Your task to perform on an android device: turn pop-ups off in chrome Image 0: 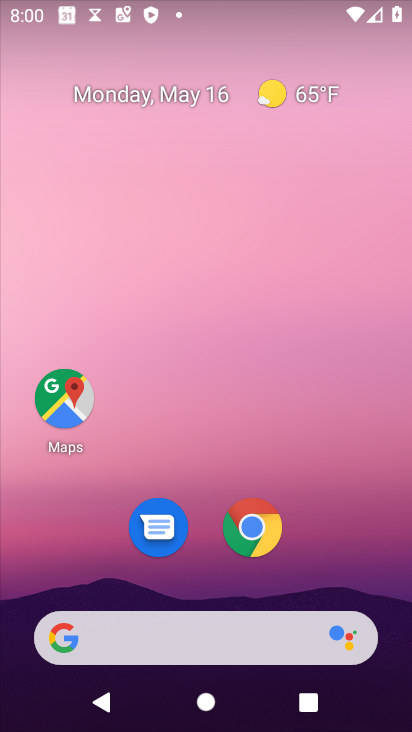
Step 0: drag from (341, 598) to (277, 144)
Your task to perform on an android device: turn pop-ups off in chrome Image 1: 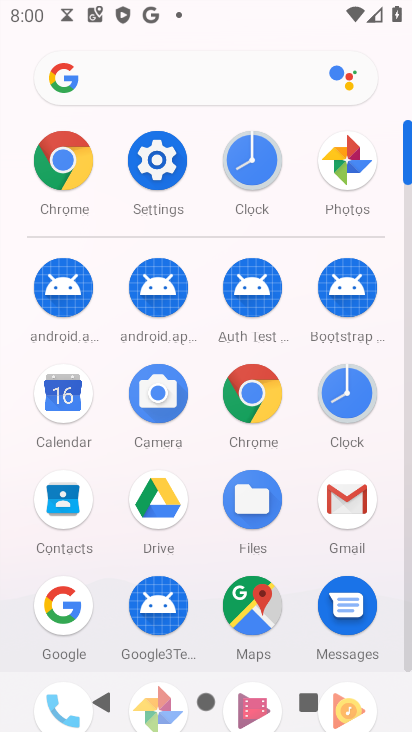
Step 1: click (56, 165)
Your task to perform on an android device: turn pop-ups off in chrome Image 2: 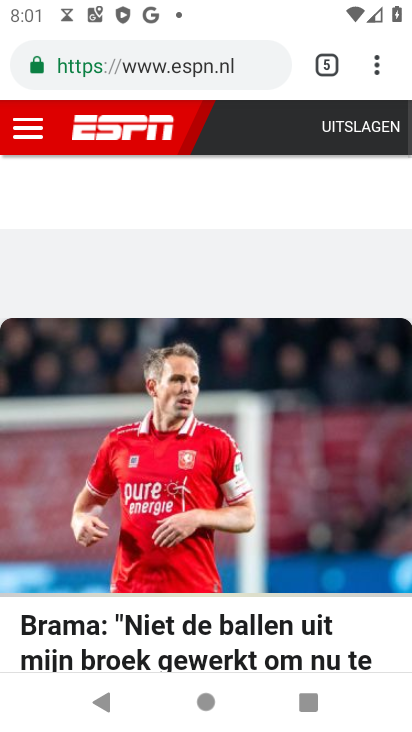
Step 2: click (359, 59)
Your task to perform on an android device: turn pop-ups off in chrome Image 3: 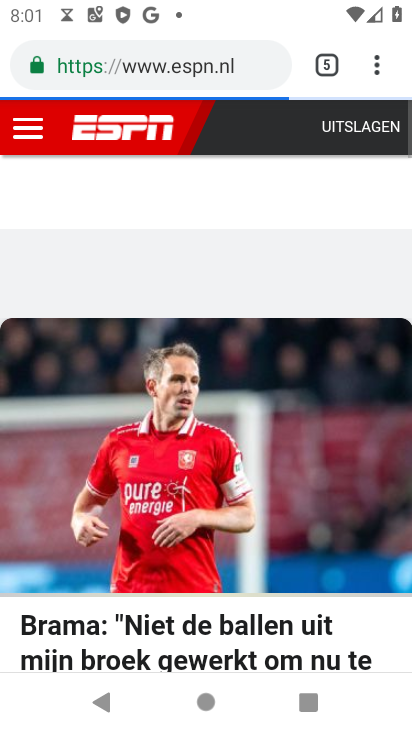
Step 3: click (360, 68)
Your task to perform on an android device: turn pop-ups off in chrome Image 4: 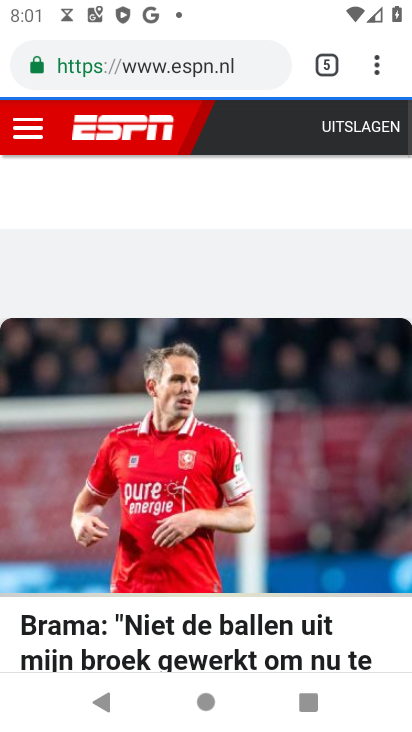
Step 4: click (379, 45)
Your task to perform on an android device: turn pop-ups off in chrome Image 5: 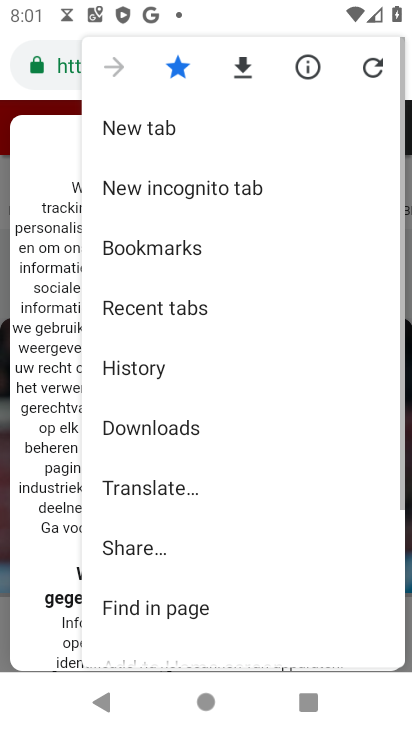
Step 5: drag from (228, 586) to (293, 267)
Your task to perform on an android device: turn pop-ups off in chrome Image 6: 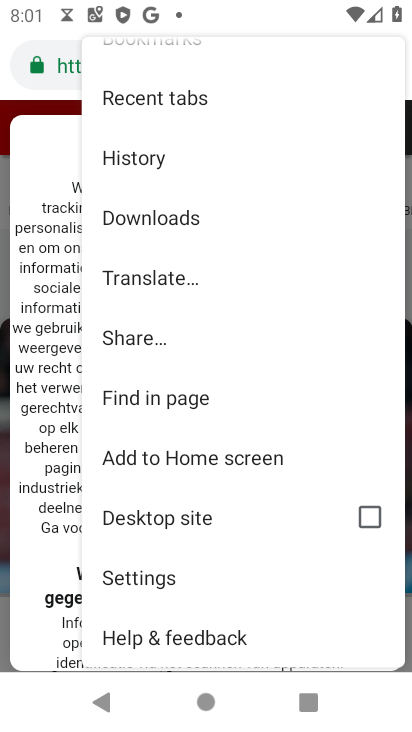
Step 6: click (185, 586)
Your task to perform on an android device: turn pop-ups off in chrome Image 7: 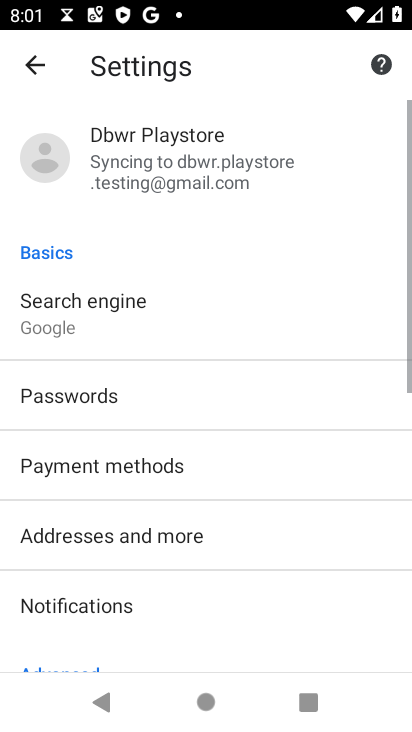
Step 7: drag from (169, 566) to (213, 264)
Your task to perform on an android device: turn pop-ups off in chrome Image 8: 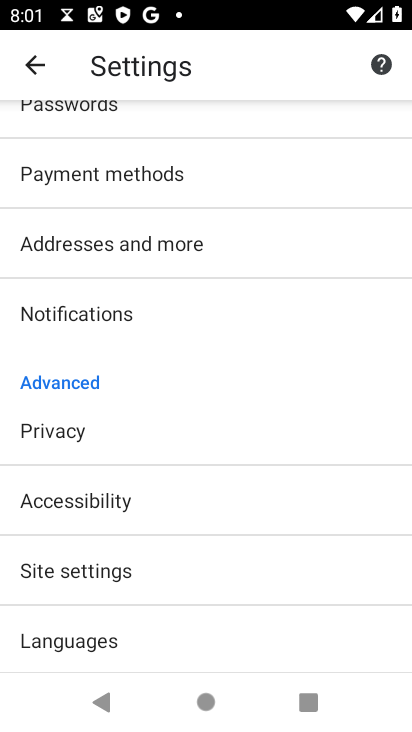
Step 8: drag from (208, 577) to (210, 521)
Your task to perform on an android device: turn pop-ups off in chrome Image 9: 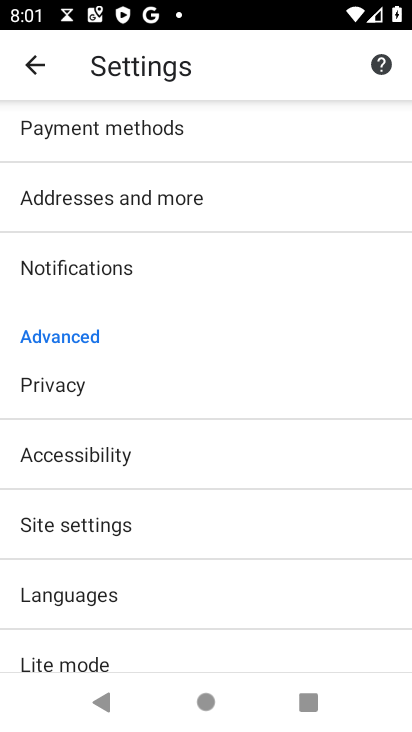
Step 9: click (142, 513)
Your task to perform on an android device: turn pop-ups off in chrome Image 10: 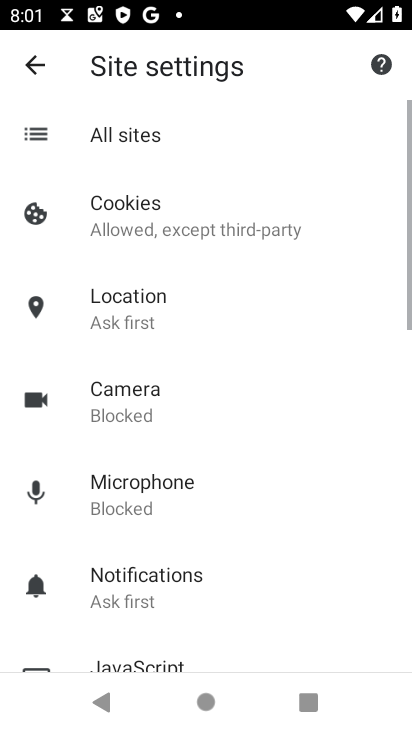
Step 10: drag from (215, 598) to (218, 349)
Your task to perform on an android device: turn pop-ups off in chrome Image 11: 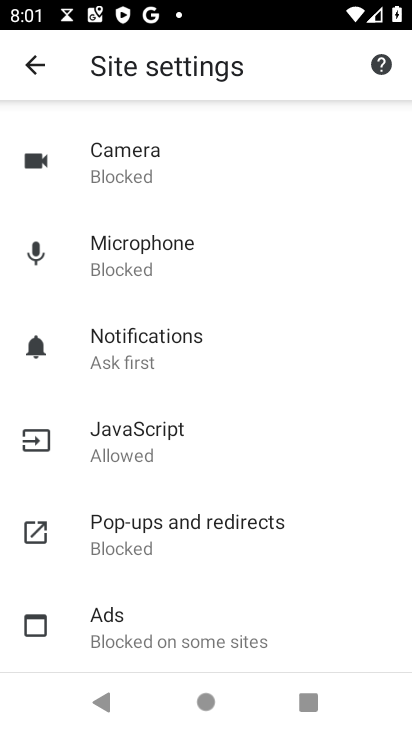
Step 11: click (151, 525)
Your task to perform on an android device: turn pop-ups off in chrome Image 12: 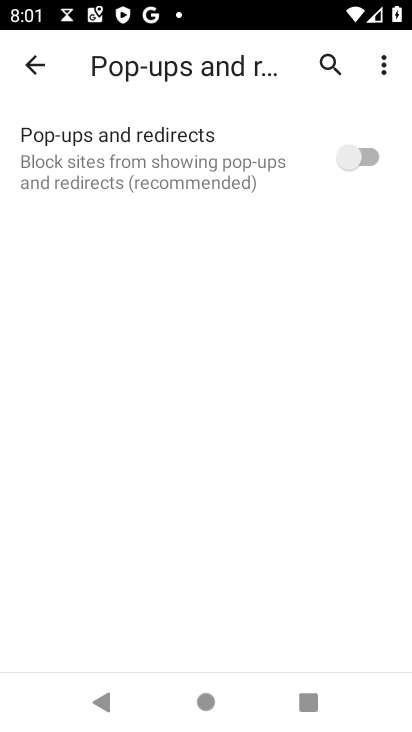
Step 12: task complete